Your task to perform on an android device: turn off location Image 0: 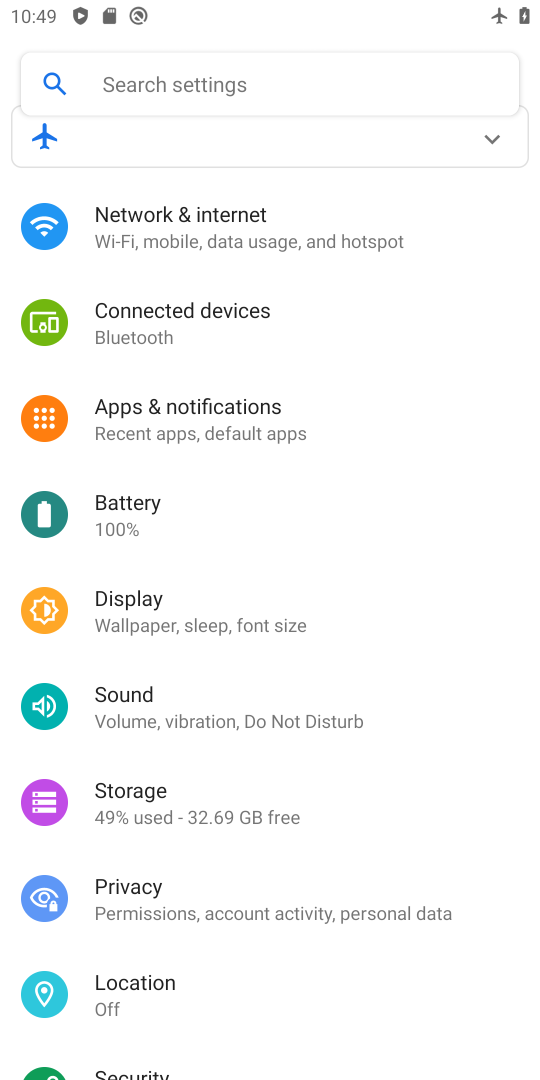
Step 0: drag from (118, 857) to (67, 96)
Your task to perform on an android device: turn off location Image 1: 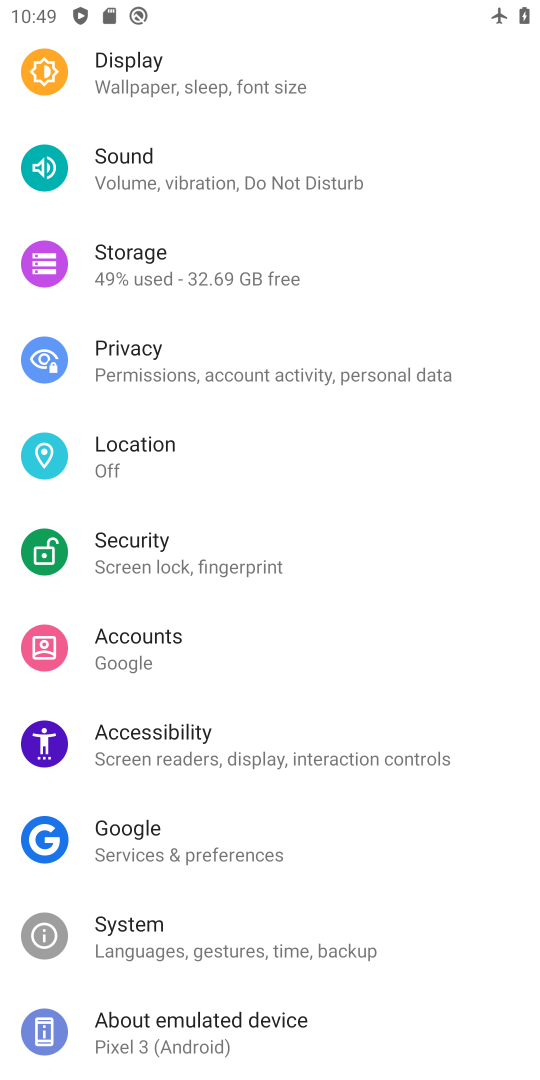
Step 1: click (83, 449)
Your task to perform on an android device: turn off location Image 2: 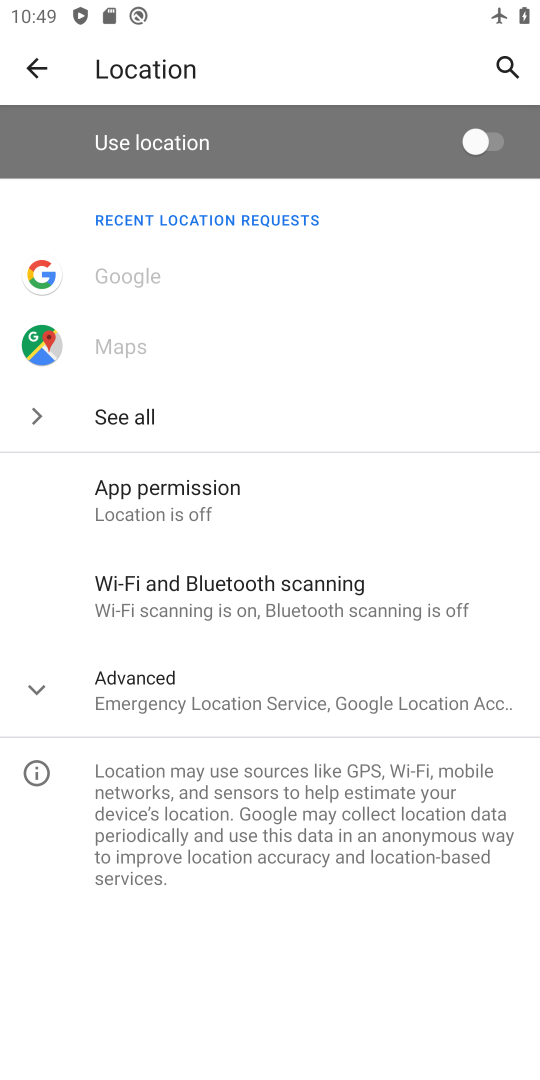
Step 2: task complete